Your task to perform on an android device: open chrome and create a bookmark for the current page Image 0: 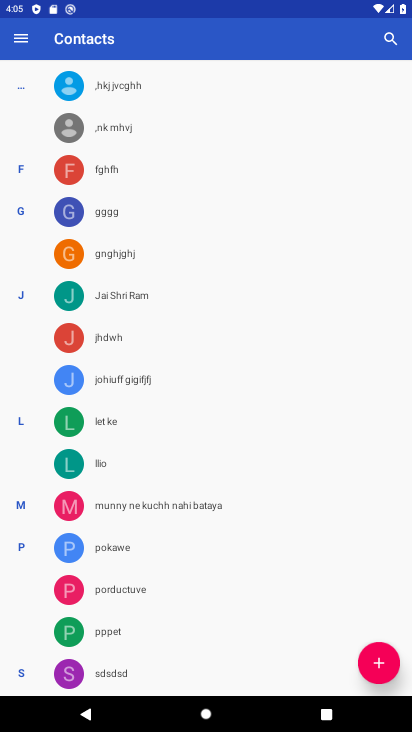
Step 0: press home button
Your task to perform on an android device: open chrome and create a bookmark for the current page Image 1: 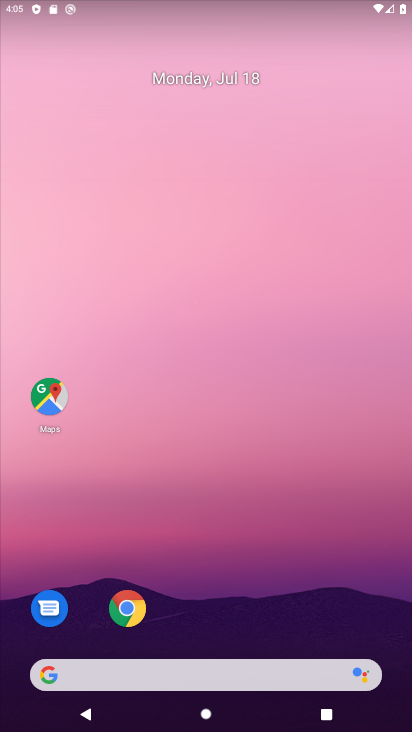
Step 1: click (119, 625)
Your task to perform on an android device: open chrome and create a bookmark for the current page Image 2: 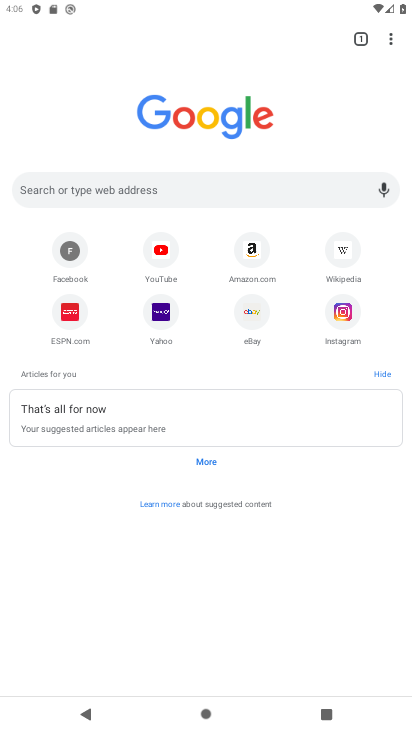
Step 2: click (393, 33)
Your task to perform on an android device: open chrome and create a bookmark for the current page Image 3: 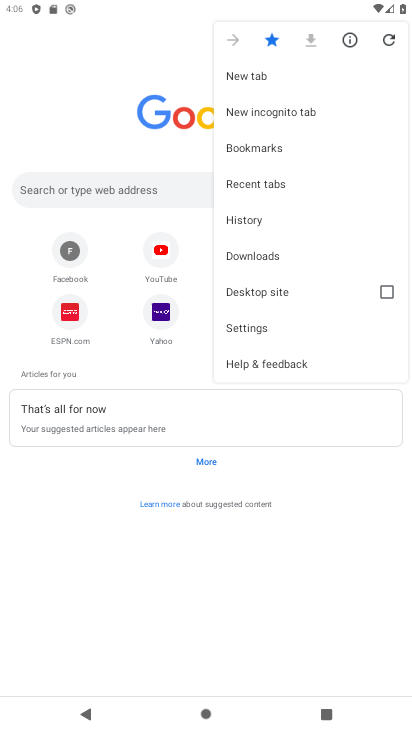
Step 3: task complete